Your task to perform on an android device: open a bookmark in the chrome app Image 0: 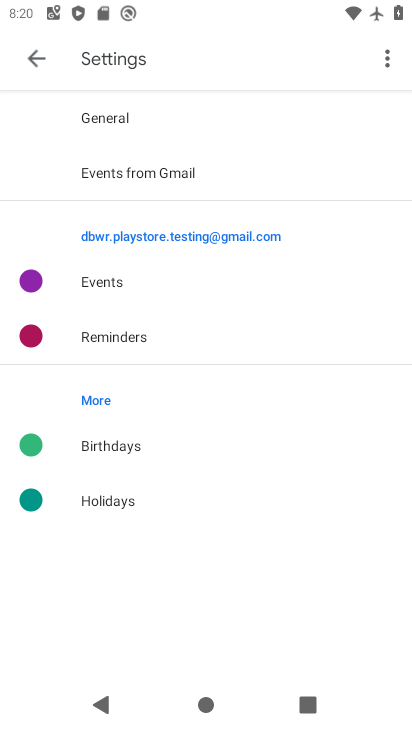
Step 0: press home button
Your task to perform on an android device: open a bookmark in the chrome app Image 1: 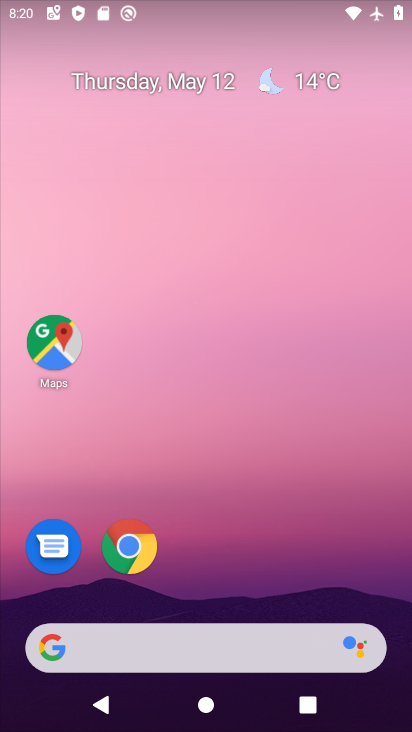
Step 1: click (133, 553)
Your task to perform on an android device: open a bookmark in the chrome app Image 2: 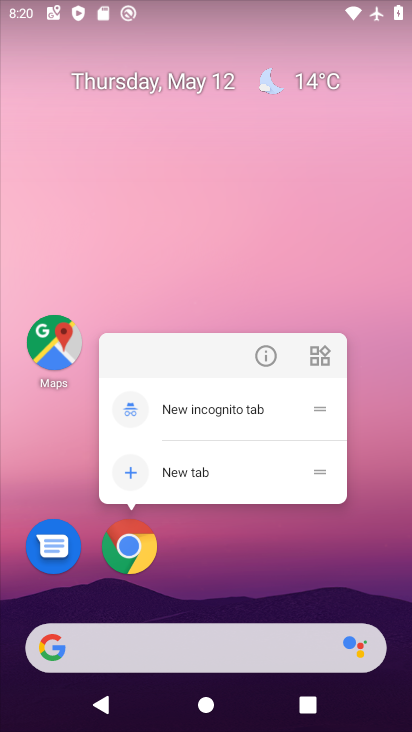
Step 2: click (133, 549)
Your task to perform on an android device: open a bookmark in the chrome app Image 3: 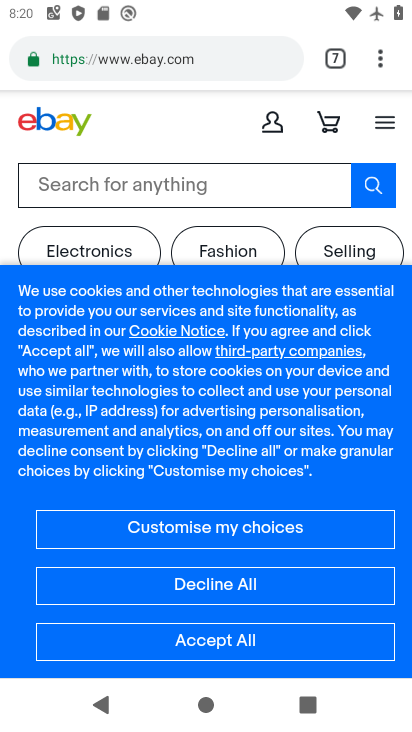
Step 3: task complete